Your task to perform on an android device: Empty the shopping cart on amazon. Search for "macbook pro 15 inch" on amazon, select the first entry, add it to the cart, then select checkout. Image 0: 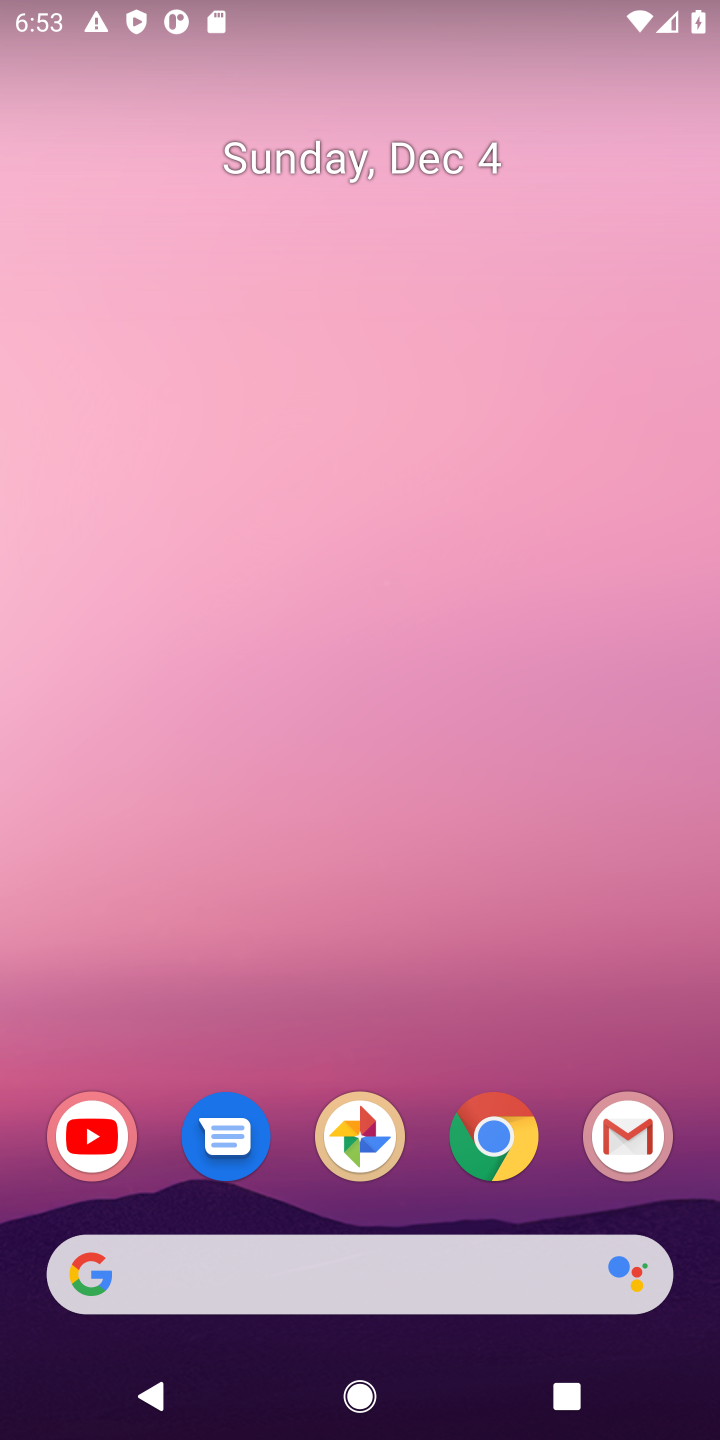
Step 0: click (494, 1140)
Your task to perform on an android device: Empty the shopping cart on amazon. Search for "macbook pro 15 inch" on amazon, select the first entry, add it to the cart, then select checkout. Image 1: 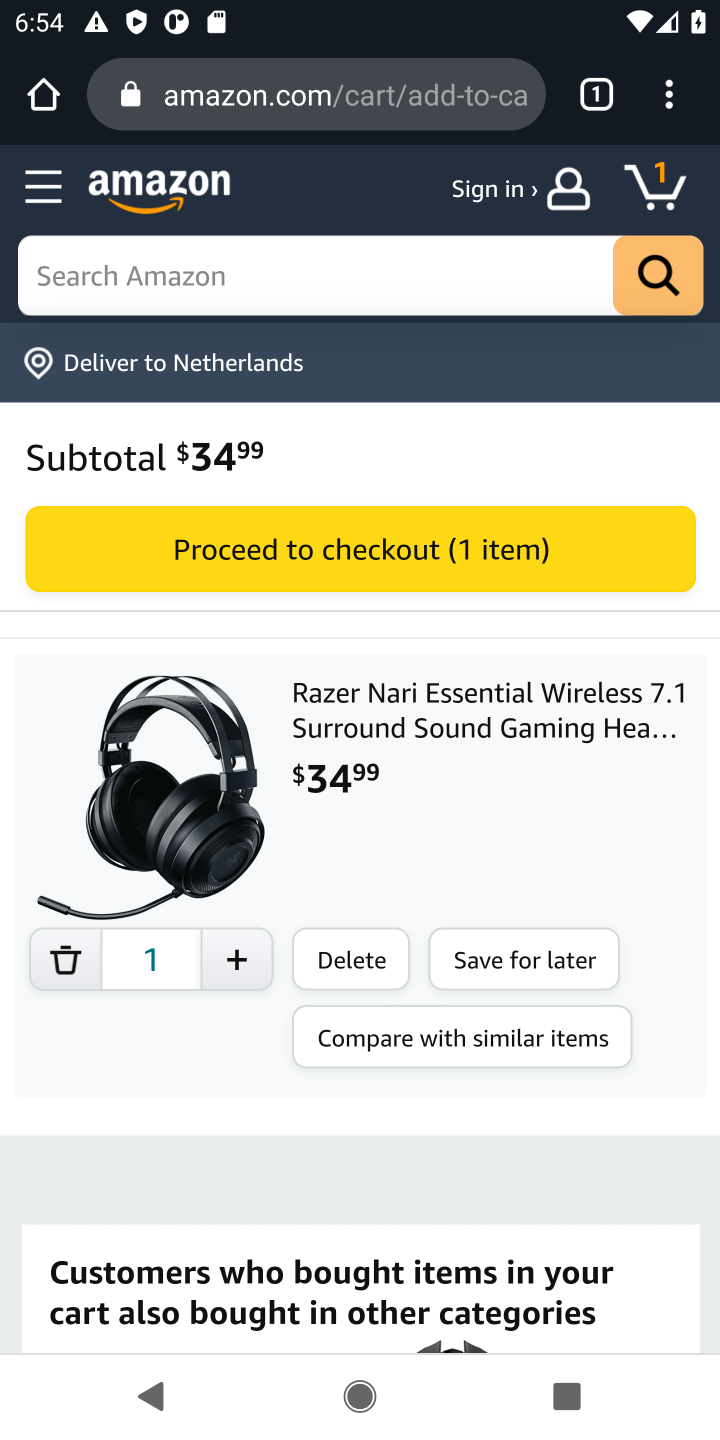
Step 1: click (349, 962)
Your task to perform on an android device: Empty the shopping cart on amazon. Search for "macbook pro 15 inch" on amazon, select the first entry, add it to the cart, then select checkout. Image 2: 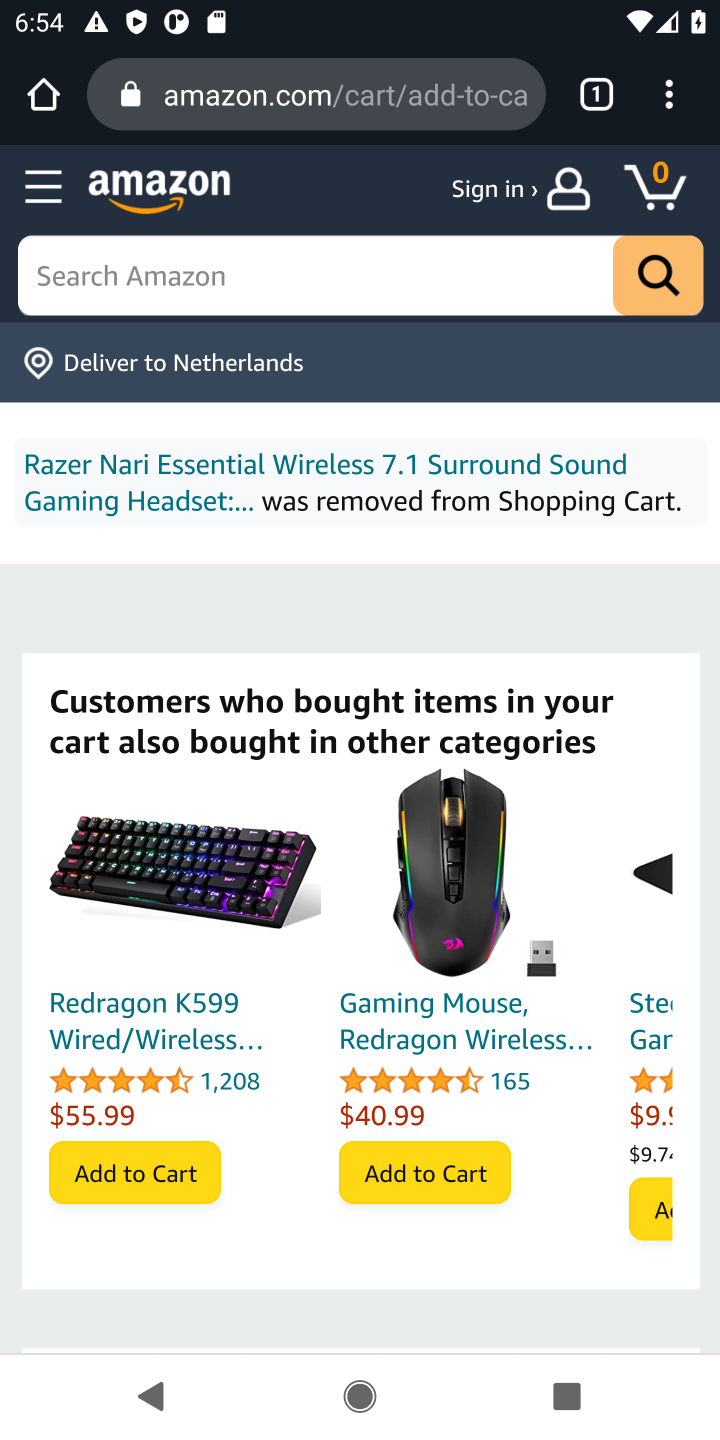
Step 2: click (231, 269)
Your task to perform on an android device: Empty the shopping cart on amazon. Search for "macbook pro 15 inch" on amazon, select the first entry, add it to the cart, then select checkout. Image 3: 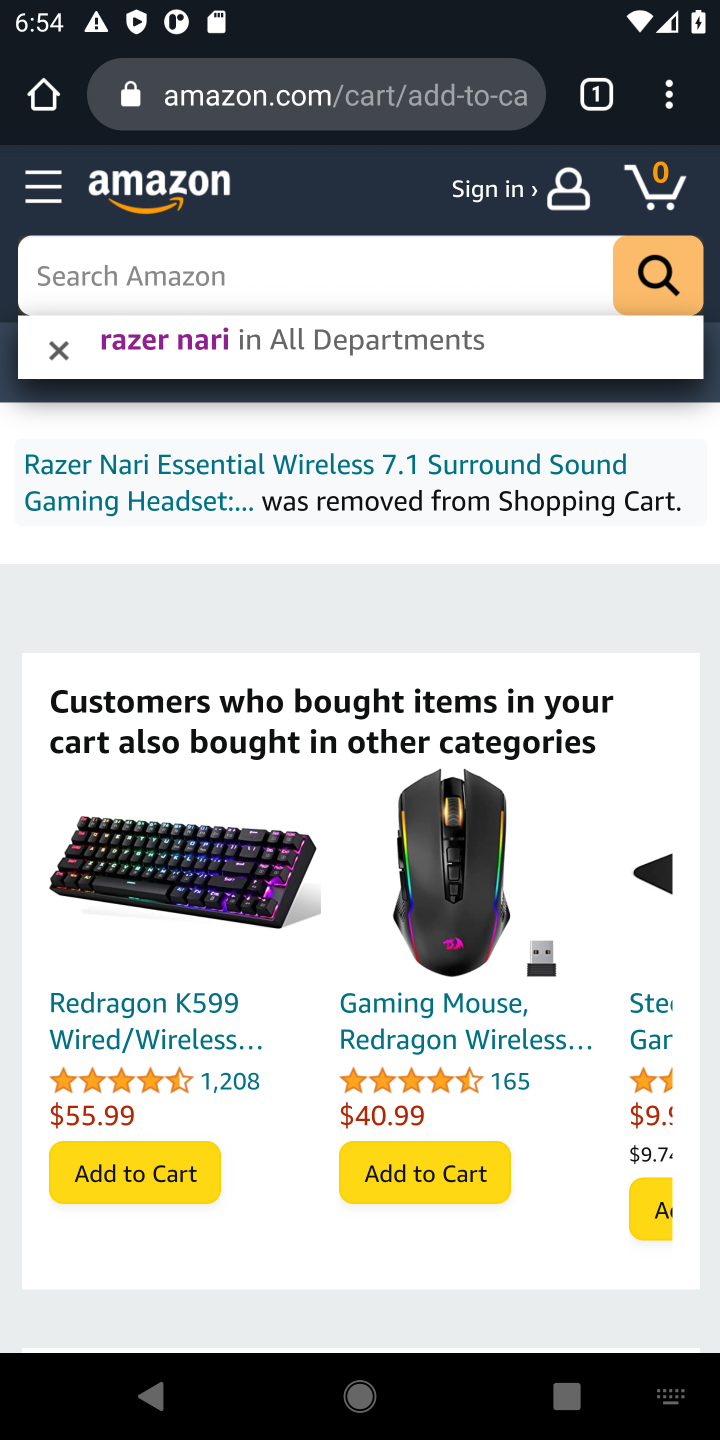
Step 3: type "macbook pro 15 inch"
Your task to perform on an android device: Empty the shopping cart on amazon. Search for "macbook pro 15 inch" on amazon, select the first entry, add it to the cart, then select checkout. Image 4: 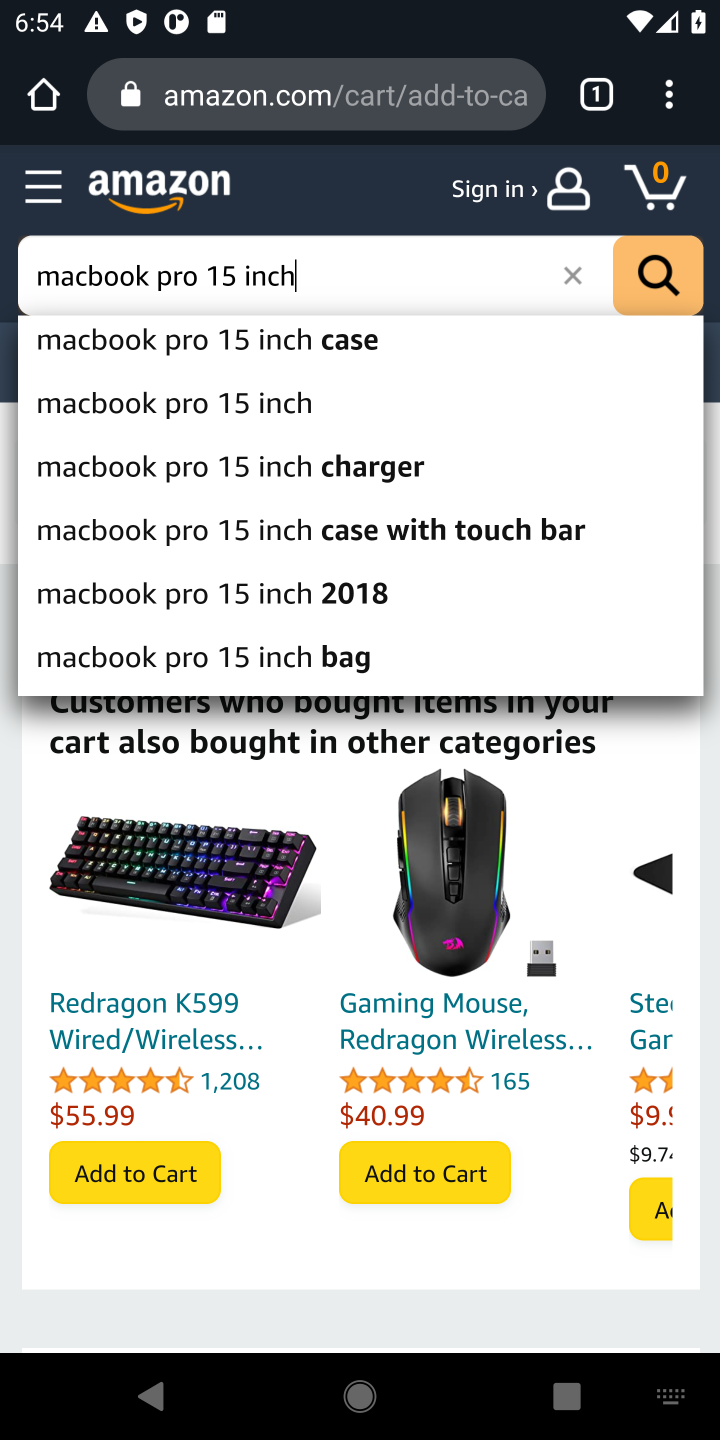
Step 4: click (200, 405)
Your task to perform on an android device: Empty the shopping cart on amazon. Search for "macbook pro 15 inch" on amazon, select the first entry, add it to the cart, then select checkout. Image 5: 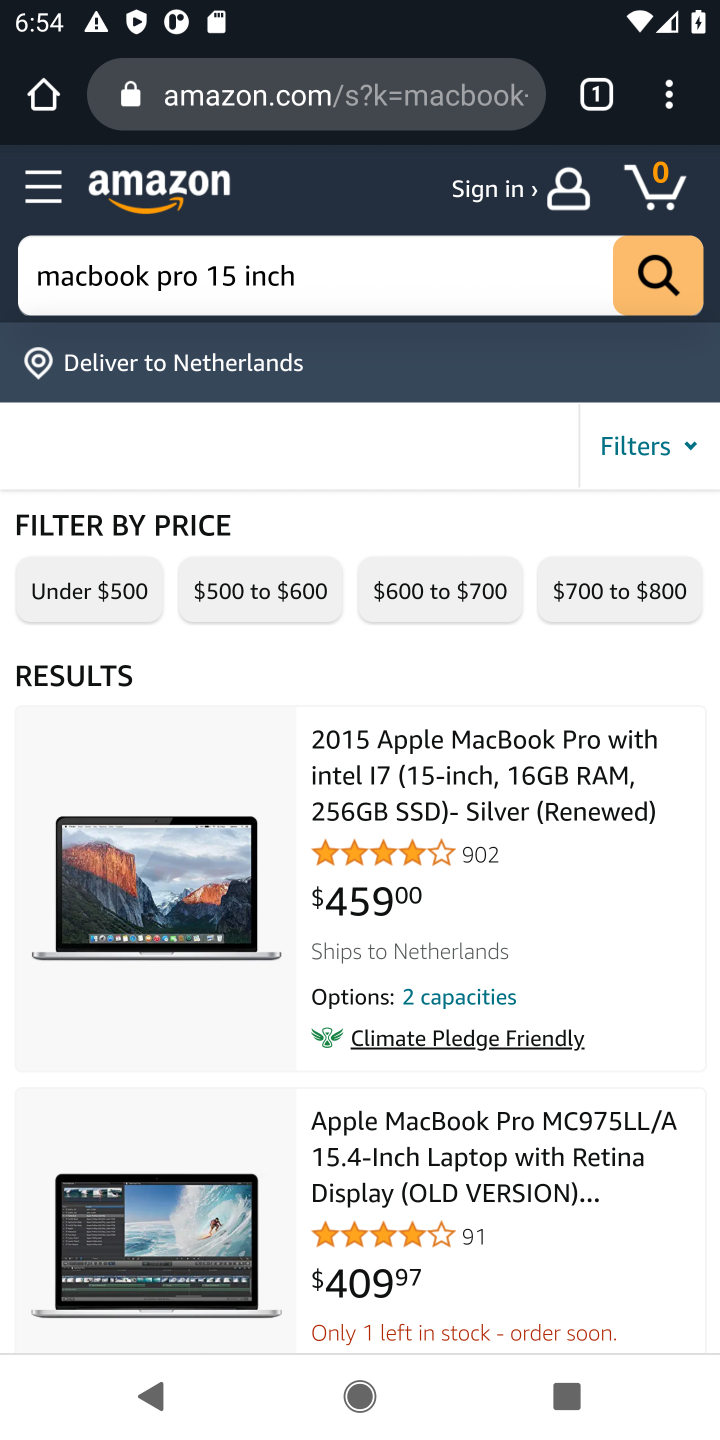
Step 5: click (450, 772)
Your task to perform on an android device: Empty the shopping cart on amazon. Search for "macbook pro 15 inch" on amazon, select the first entry, add it to the cart, then select checkout. Image 6: 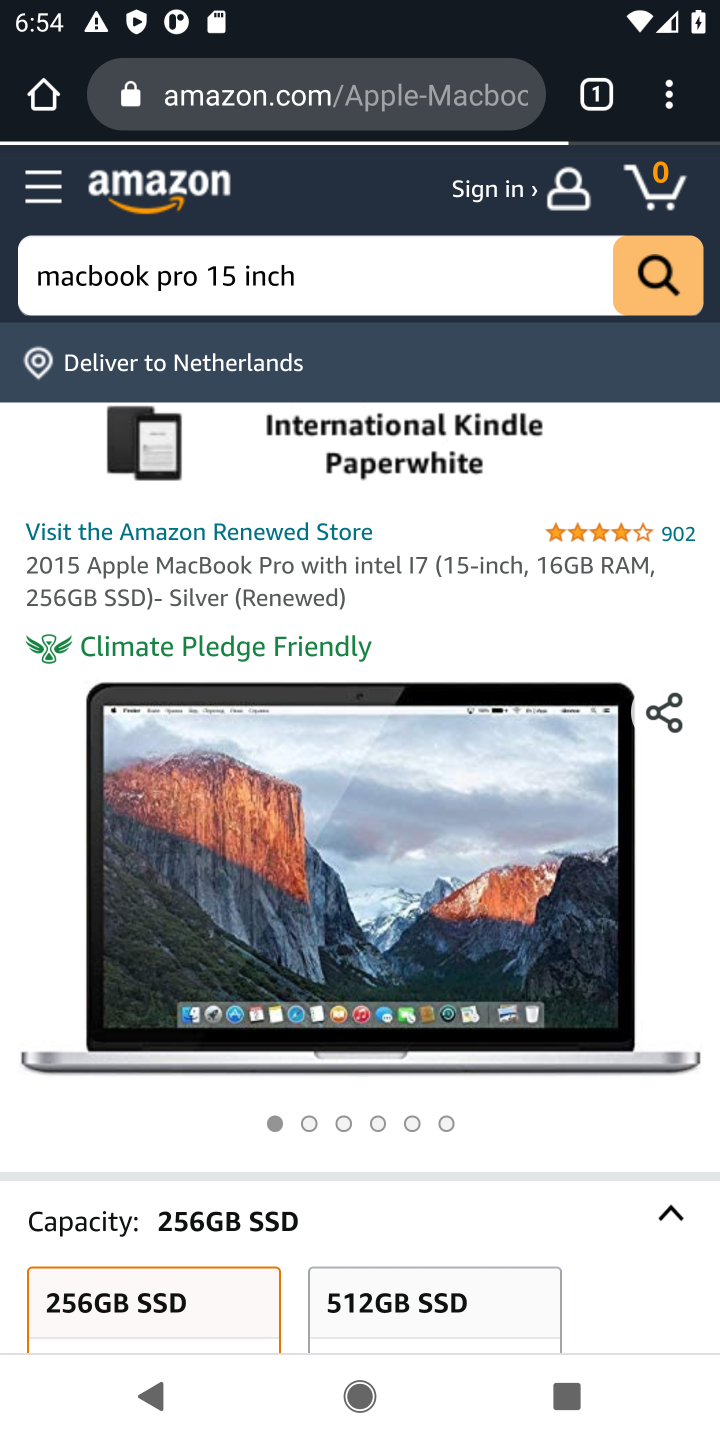
Step 6: drag from (441, 1158) to (455, 547)
Your task to perform on an android device: Empty the shopping cart on amazon. Search for "macbook pro 15 inch" on amazon, select the first entry, add it to the cart, then select checkout. Image 7: 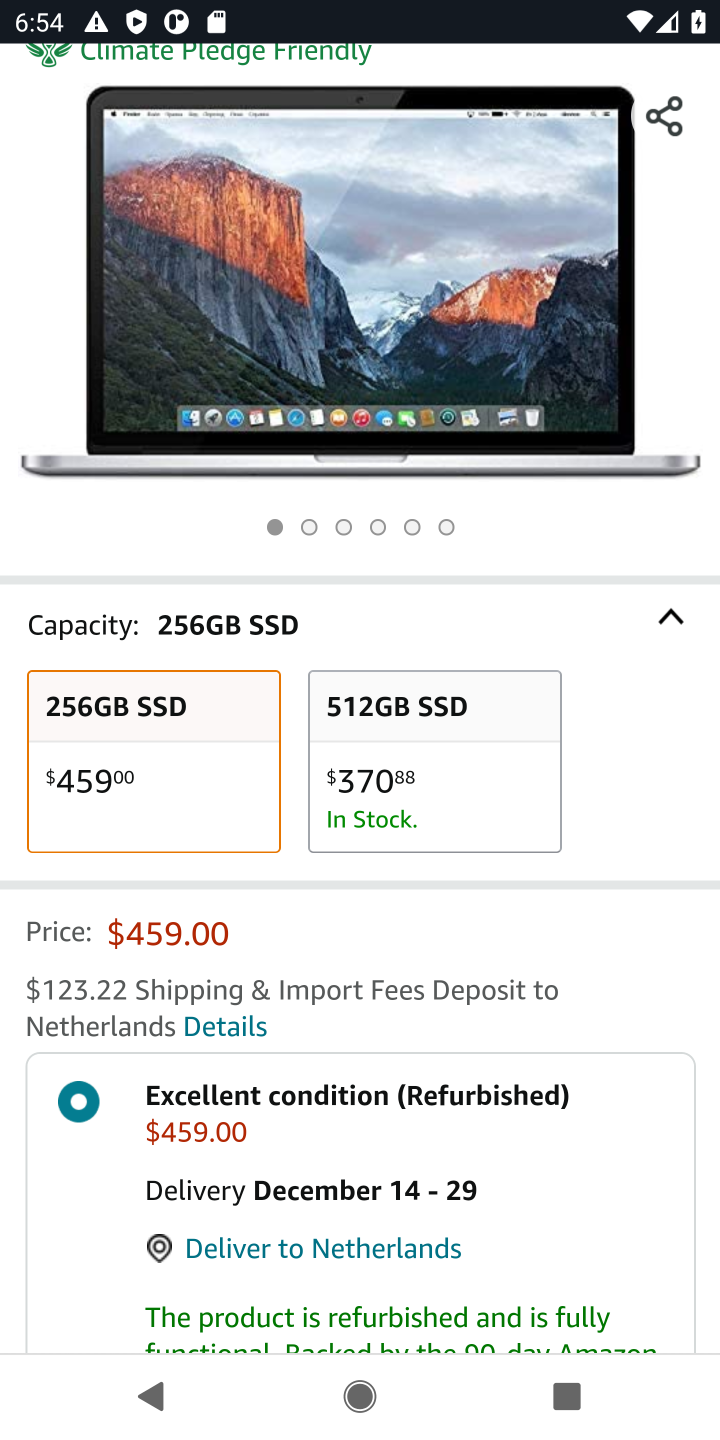
Step 7: drag from (408, 1006) to (411, 469)
Your task to perform on an android device: Empty the shopping cart on amazon. Search for "macbook pro 15 inch" on amazon, select the first entry, add it to the cart, then select checkout. Image 8: 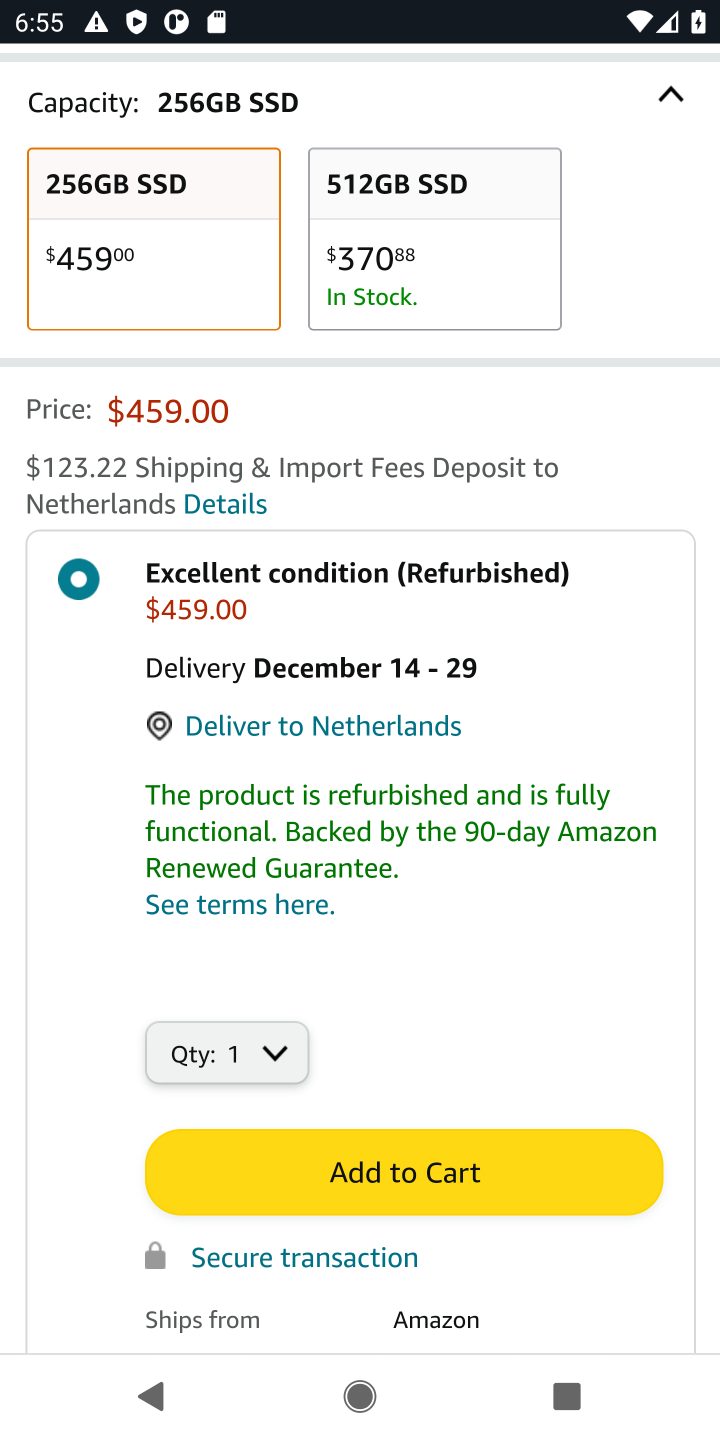
Step 8: click (395, 1173)
Your task to perform on an android device: Empty the shopping cart on amazon. Search for "macbook pro 15 inch" on amazon, select the first entry, add it to the cart, then select checkout. Image 9: 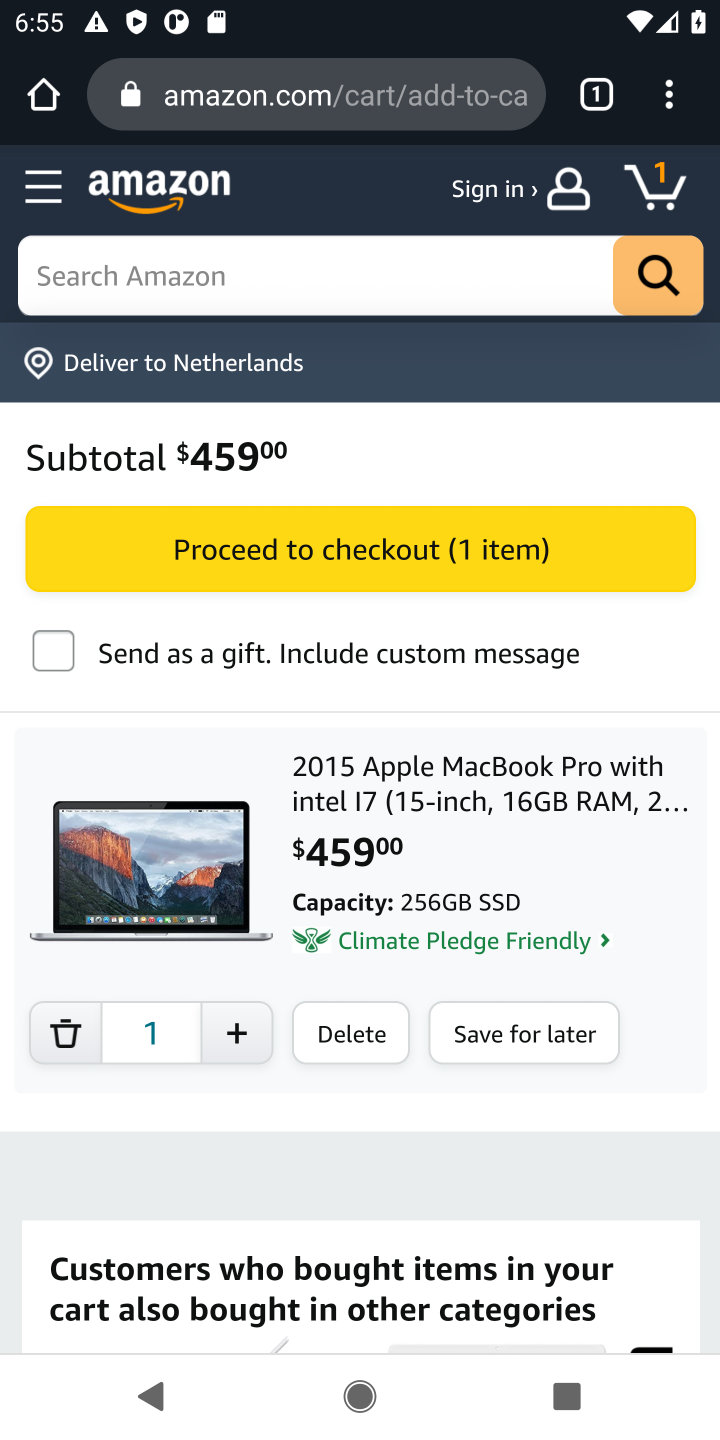
Step 9: click (354, 566)
Your task to perform on an android device: Empty the shopping cart on amazon. Search for "macbook pro 15 inch" on amazon, select the first entry, add it to the cart, then select checkout. Image 10: 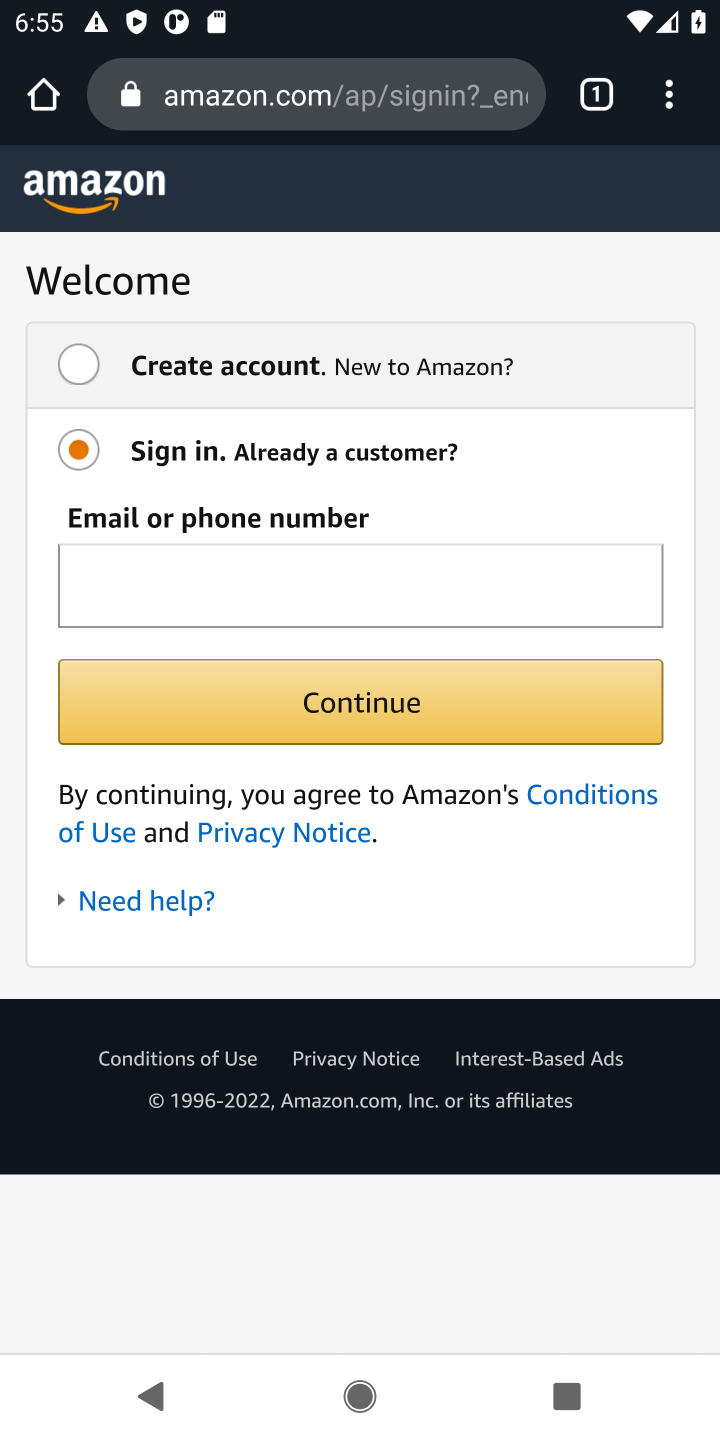
Step 10: task complete